Your task to perform on an android device: delete the emails in spam in the gmail app Image 0: 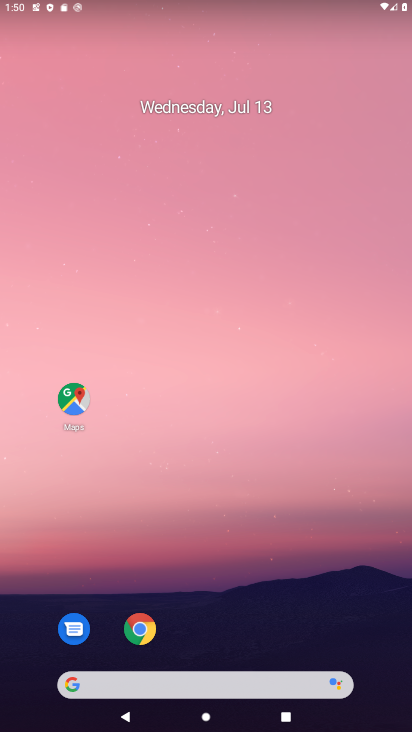
Step 0: drag from (196, 680) to (231, 309)
Your task to perform on an android device: delete the emails in spam in the gmail app Image 1: 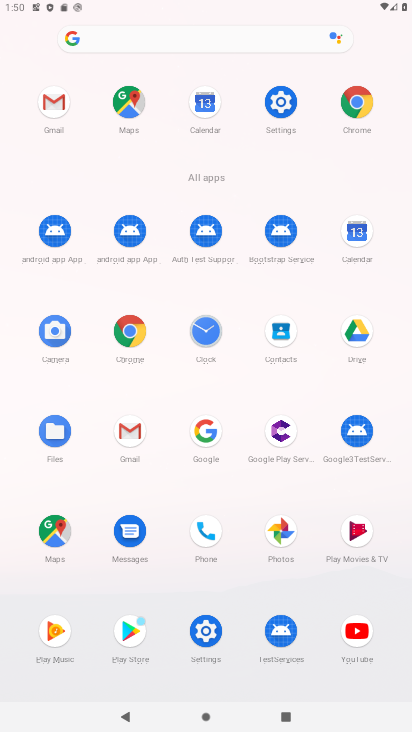
Step 1: click (54, 101)
Your task to perform on an android device: delete the emails in spam in the gmail app Image 2: 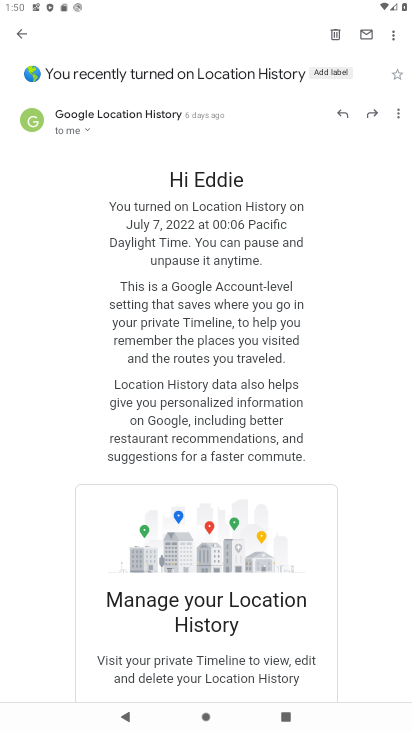
Step 2: press back button
Your task to perform on an android device: delete the emails in spam in the gmail app Image 3: 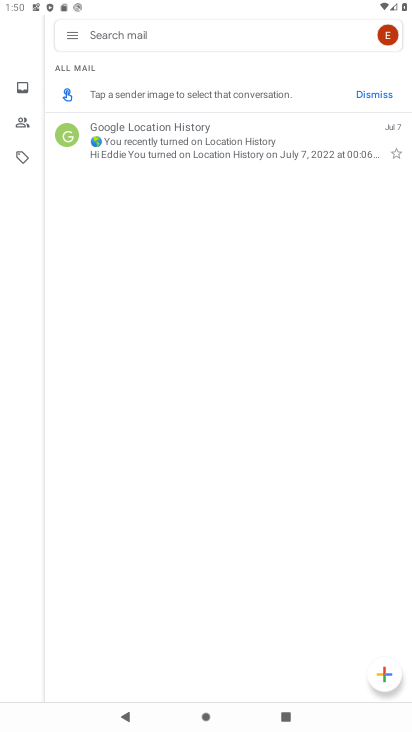
Step 3: click (63, 40)
Your task to perform on an android device: delete the emails in spam in the gmail app Image 4: 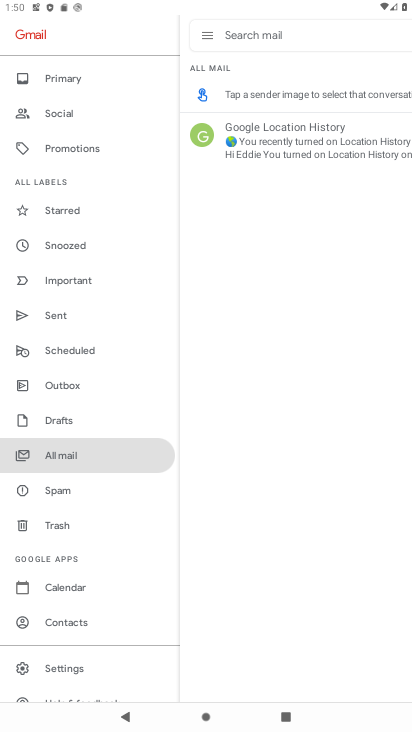
Step 4: click (50, 489)
Your task to perform on an android device: delete the emails in spam in the gmail app Image 5: 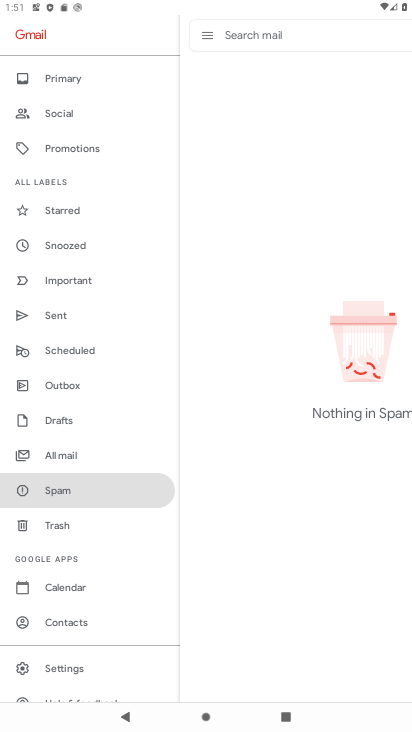
Step 5: task complete